Your task to perform on an android device: open wifi settings Image 0: 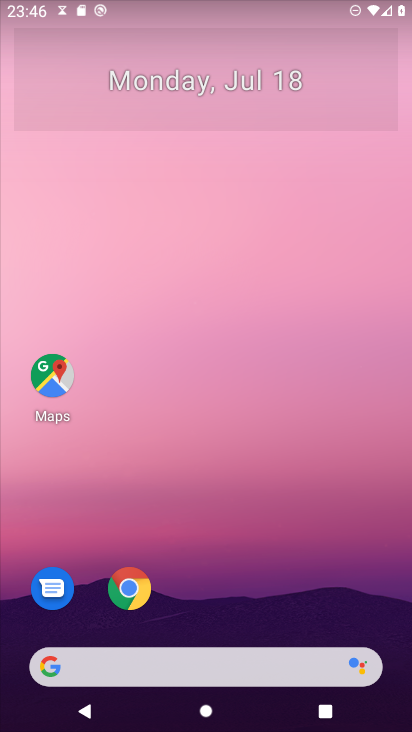
Step 0: press home button
Your task to perform on an android device: open wifi settings Image 1: 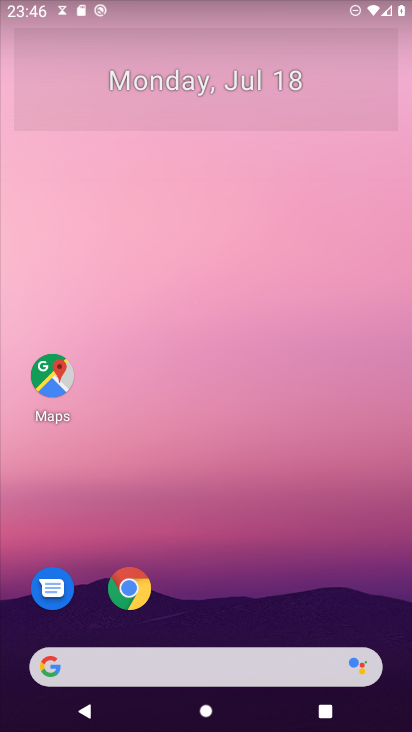
Step 1: drag from (244, 584) to (316, 4)
Your task to perform on an android device: open wifi settings Image 2: 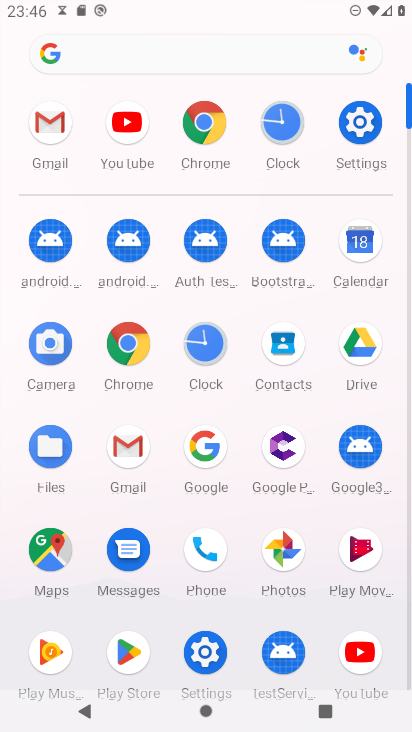
Step 2: click (364, 158)
Your task to perform on an android device: open wifi settings Image 3: 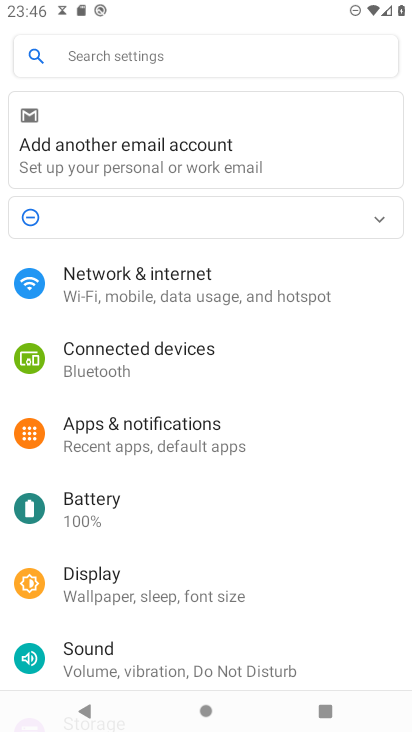
Step 3: click (150, 283)
Your task to perform on an android device: open wifi settings Image 4: 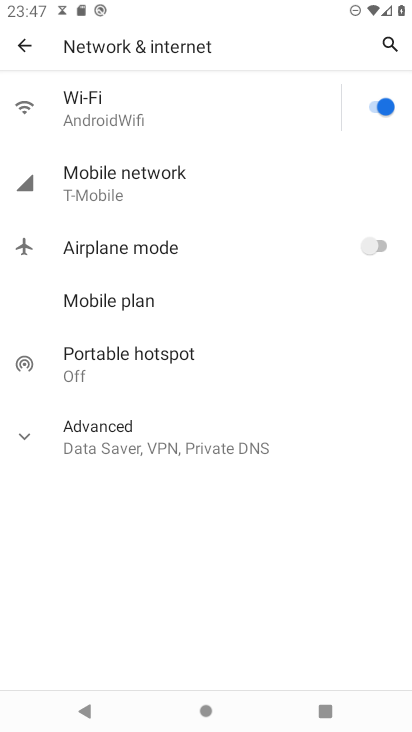
Step 4: click (114, 106)
Your task to perform on an android device: open wifi settings Image 5: 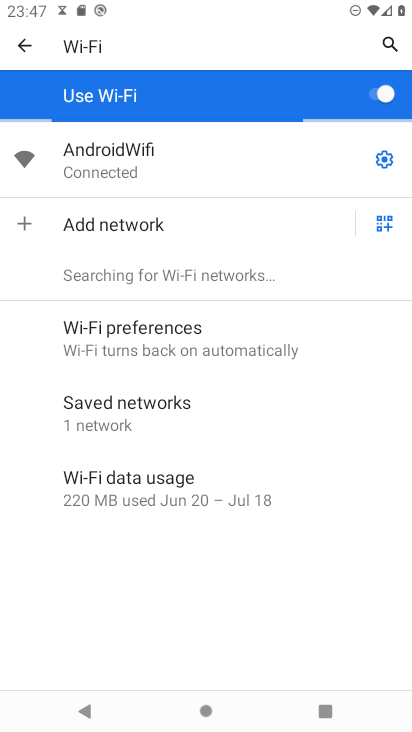
Step 5: task complete